Your task to perform on an android device: Do I have any events today? Image 0: 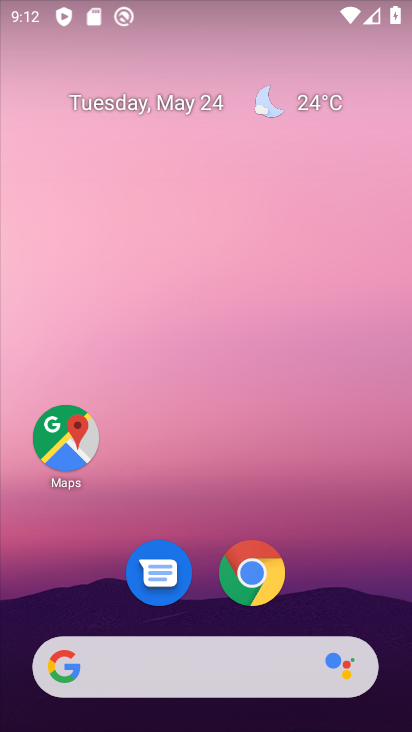
Step 0: drag from (384, 620) to (335, 71)
Your task to perform on an android device: Do I have any events today? Image 1: 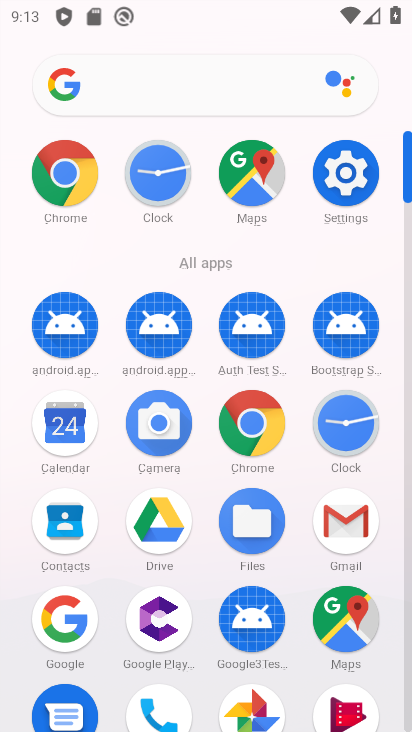
Step 1: click (405, 720)
Your task to perform on an android device: Do I have any events today? Image 2: 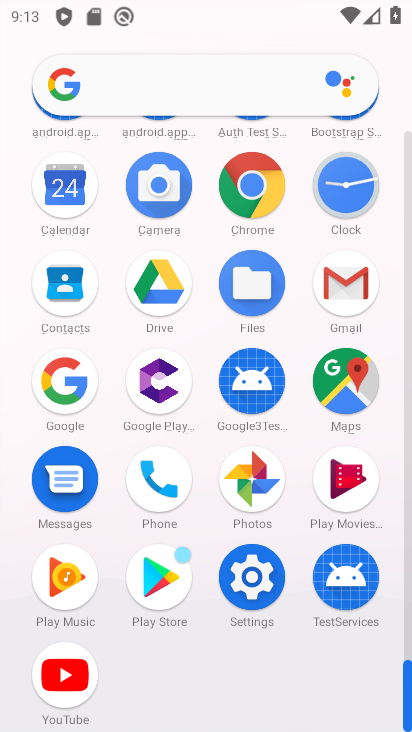
Step 2: click (66, 185)
Your task to perform on an android device: Do I have any events today? Image 3: 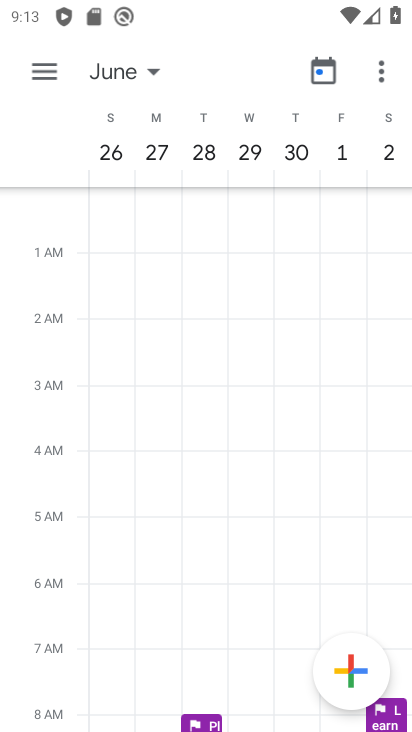
Step 3: click (47, 67)
Your task to perform on an android device: Do I have any events today? Image 4: 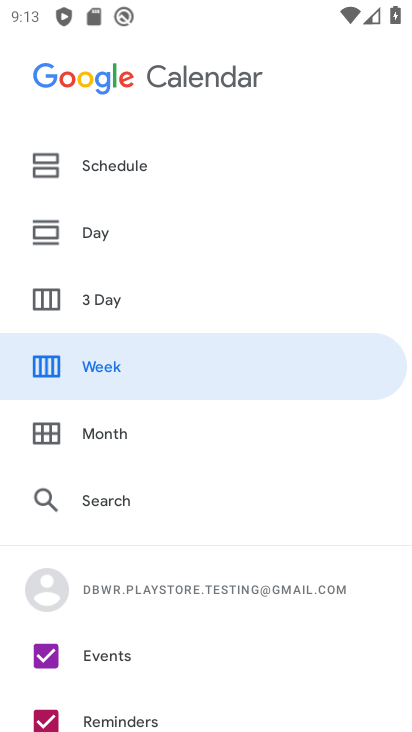
Step 4: click (84, 229)
Your task to perform on an android device: Do I have any events today? Image 5: 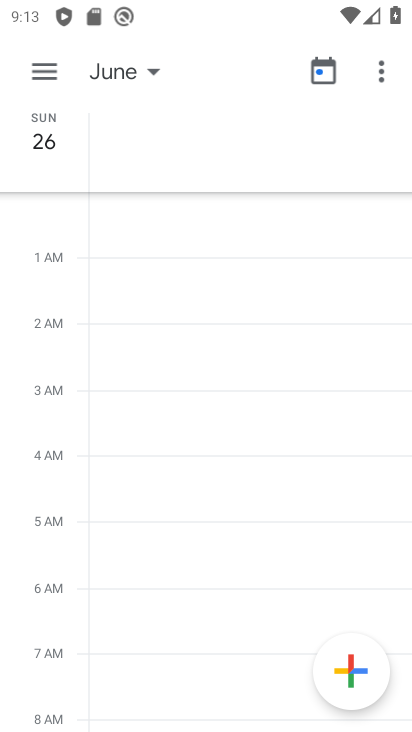
Step 5: click (149, 77)
Your task to perform on an android device: Do I have any events today? Image 6: 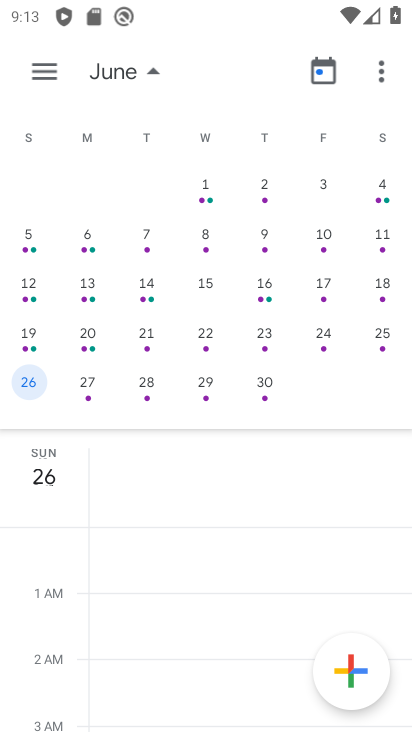
Step 6: drag from (63, 318) to (397, 340)
Your task to perform on an android device: Do I have any events today? Image 7: 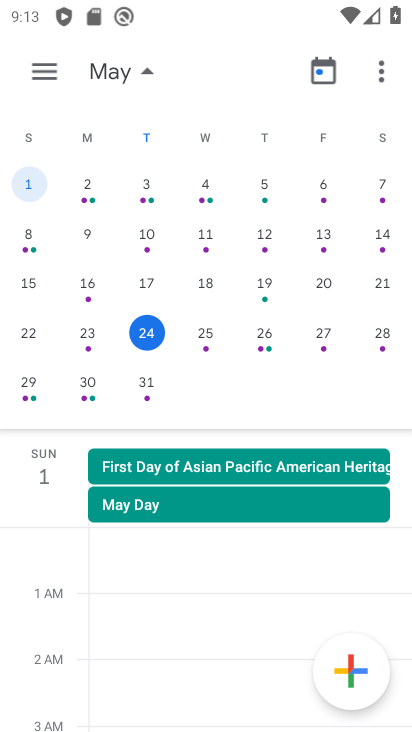
Step 7: click (149, 336)
Your task to perform on an android device: Do I have any events today? Image 8: 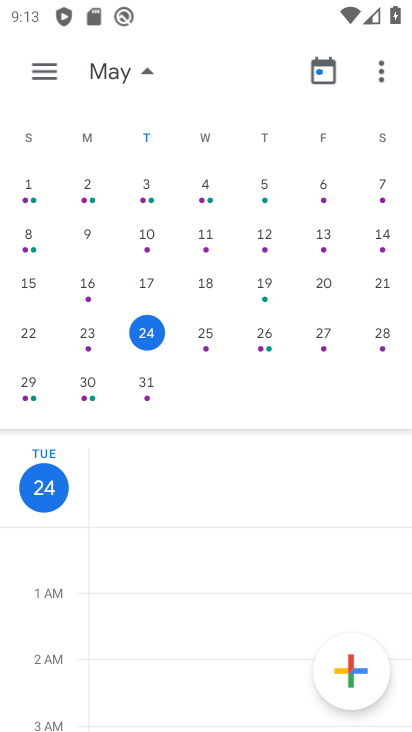
Step 8: task complete